Your task to perform on an android device: turn off sleep mode Image 0: 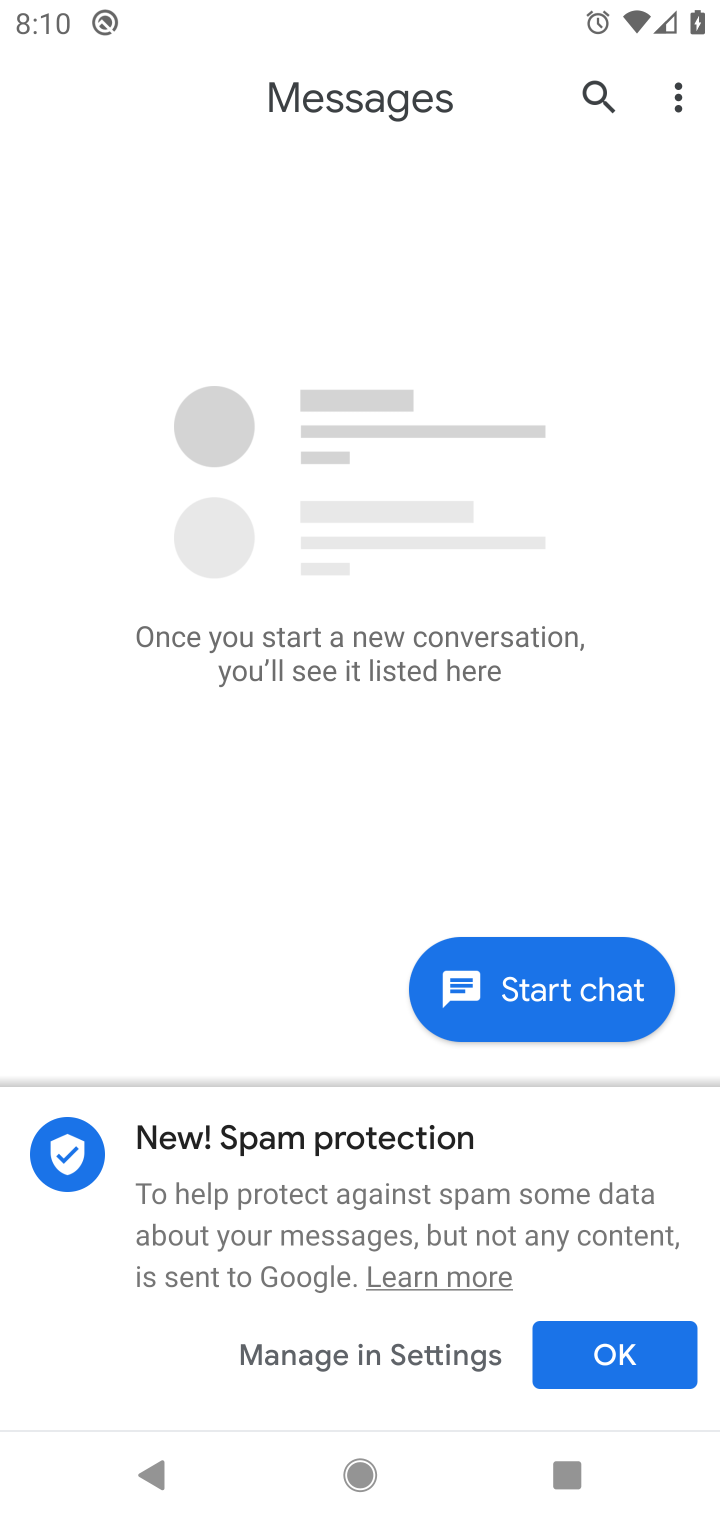
Step 0: press home button
Your task to perform on an android device: turn off sleep mode Image 1: 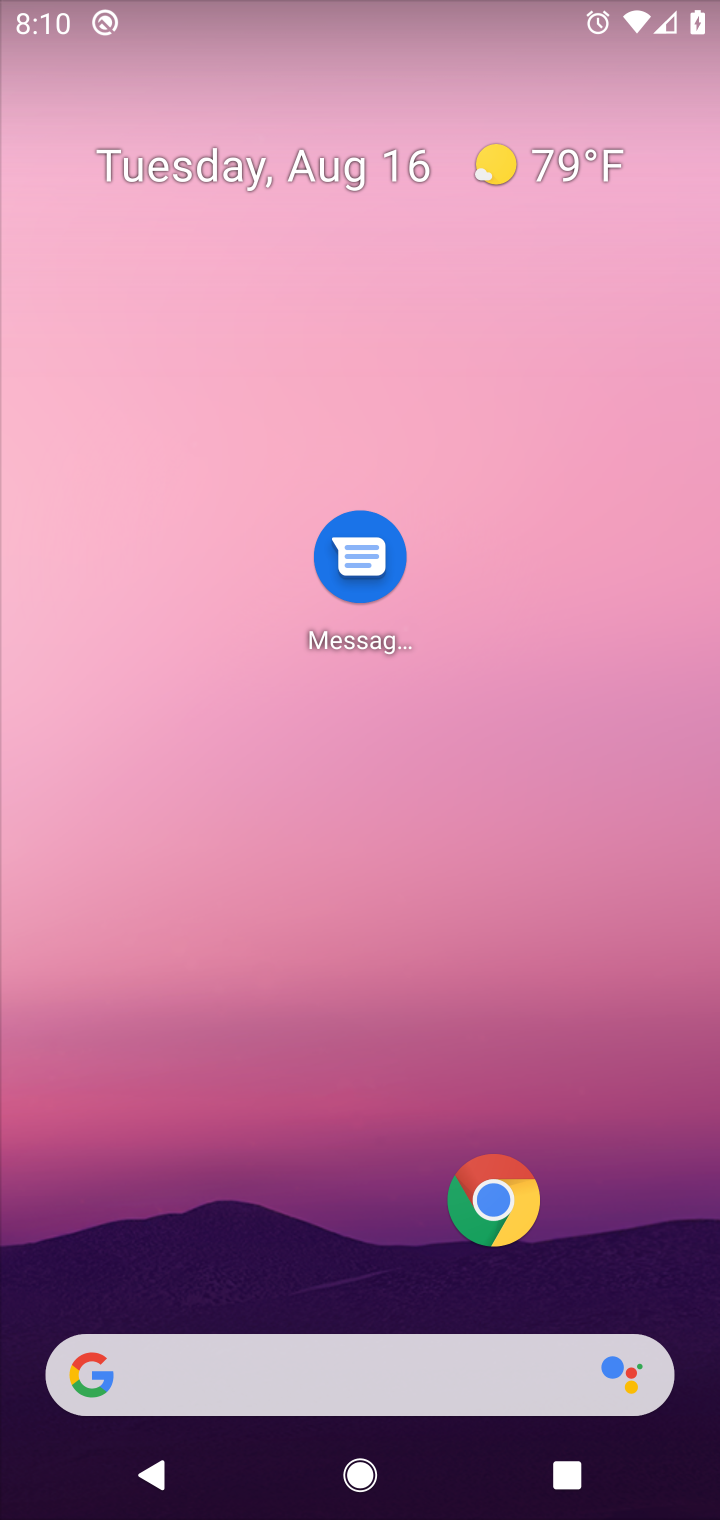
Step 1: task complete